Your task to perform on an android device: Search for the best rated vacuums on Target Image 0: 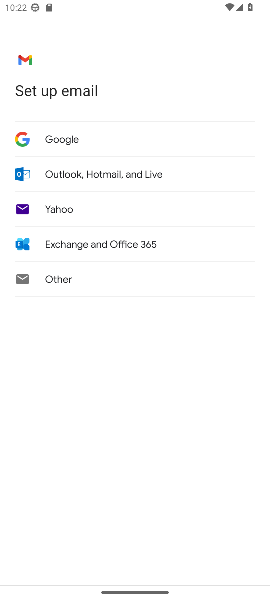
Step 0: press home button
Your task to perform on an android device: Search for the best rated vacuums on Target Image 1: 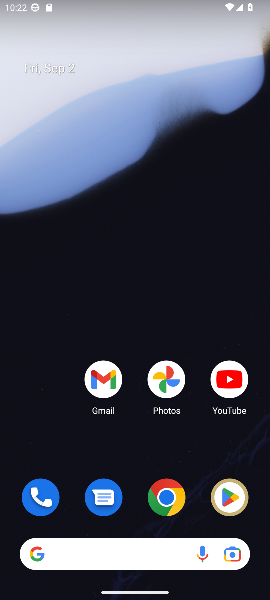
Step 1: drag from (124, 525) to (115, 59)
Your task to perform on an android device: Search for the best rated vacuums on Target Image 2: 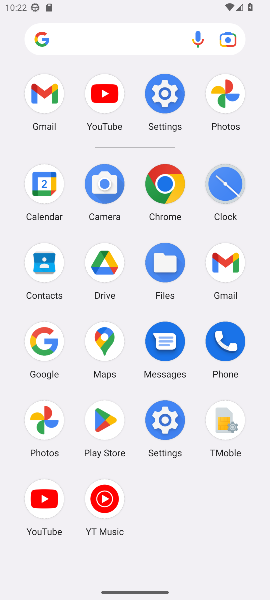
Step 2: click (41, 349)
Your task to perform on an android device: Search for the best rated vacuums on Target Image 3: 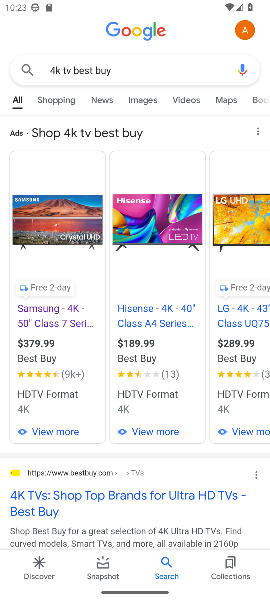
Step 3: click (124, 65)
Your task to perform on an android device: Search for the best rated vacuums on Target Image 4: 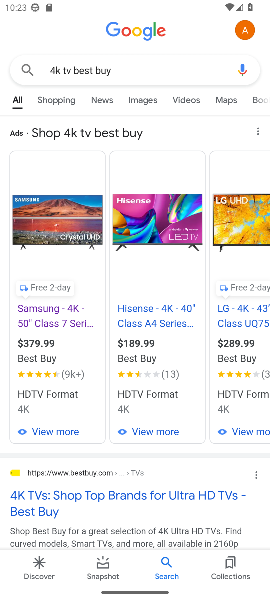
Step 4: click (124, 65)
Your task to perform on an android device: Search for the best rated vacuums on Target Image 5: 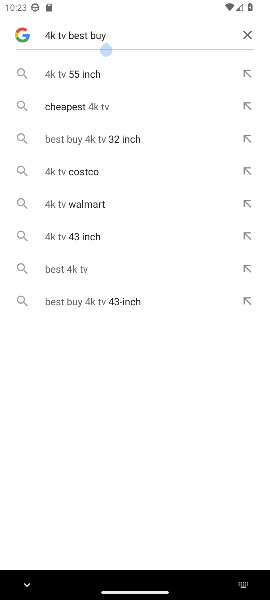
Step 5: click (245, 33)
Your task to perform on an android device: Search for the best rated vacuums on Target Image 6: 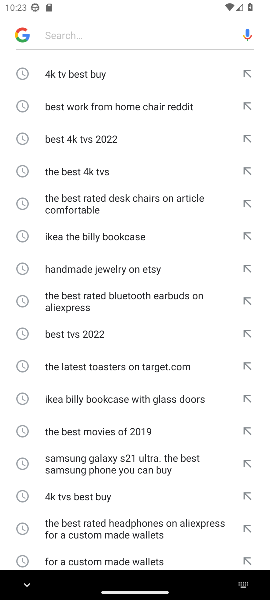
Step 6: type " the best rated vacuums on Target"
Your task to perform on an android device: Search for the best rated vacuums on Target Image 7: 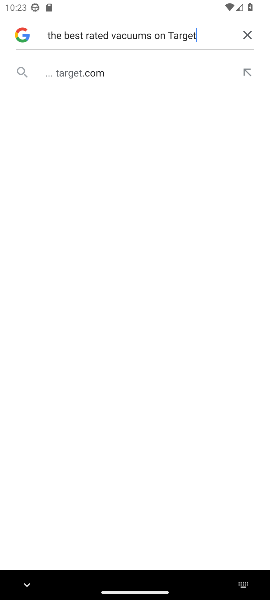
Step 7: click (67, 78)
Your task to perform on an android device: Search for the best rated vacuums on Target Image 8: 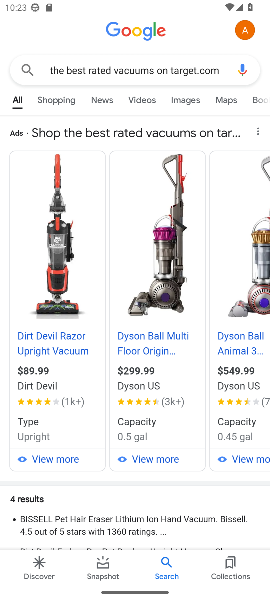
Step 8: task complete